Your task to perform on an android device: Look up the best rated headphones on Aliexpress Image 0: 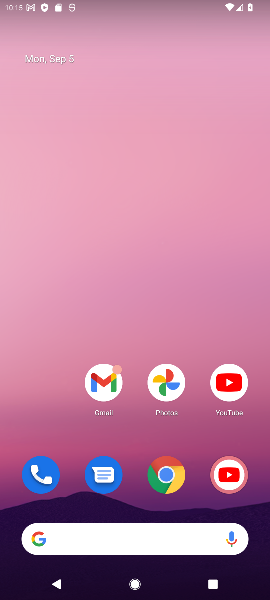
Step 0: click (229, 397)
Your task to perform on an android device: Look up the best rated headphones on Aliexpress Image 1: 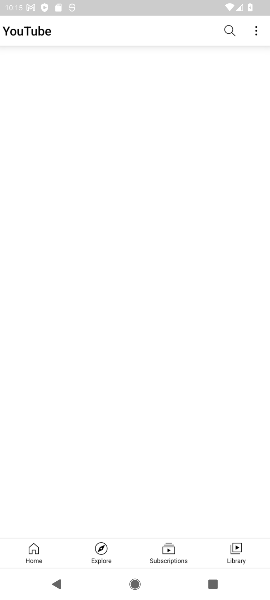
Step 1: task complete